Your task to perform on an android device: read, delete, or share a saved page in the chrome app Image 0: 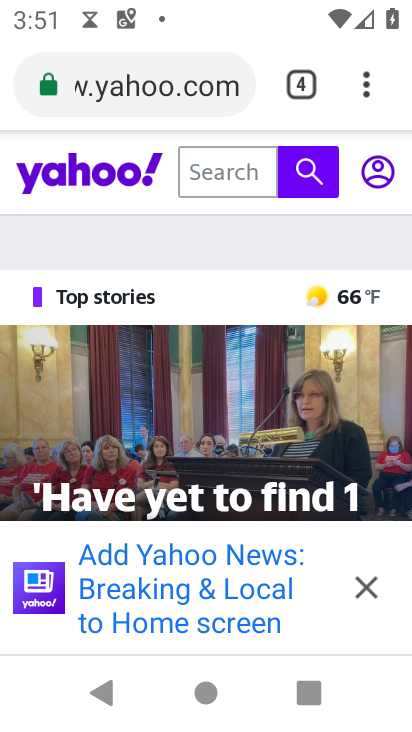
Step 0: click (362, 588)
Your task to perform on an android device: read, delete, or share a saved page in the chrome app Image 1: 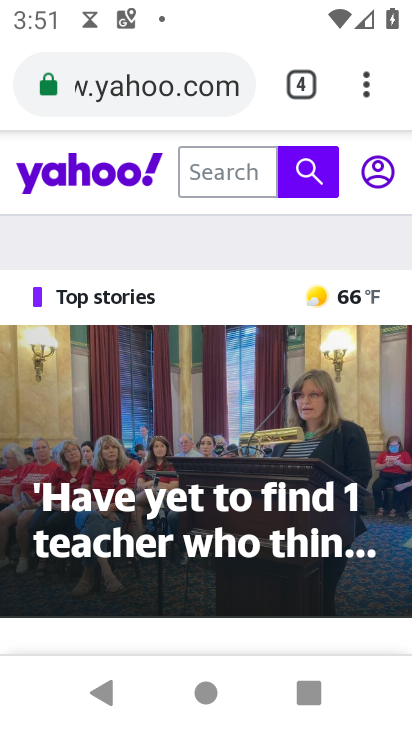
Step 1: click (369, 80)
Your task to perform on an android device: read, delete, or share a saved page in the chrome app Image 2: 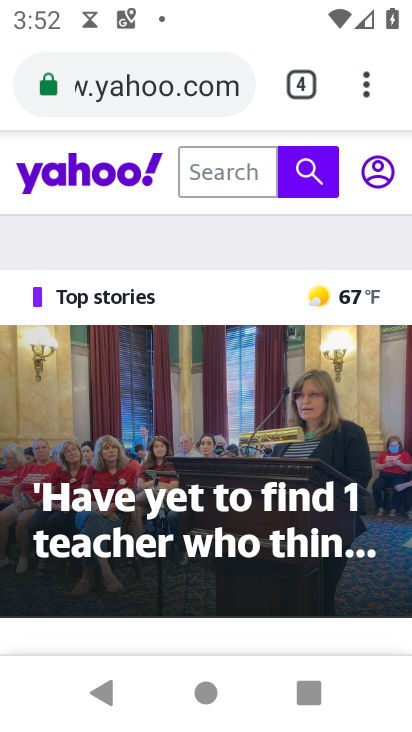
Step 2: click (361, 73)
Your task to perform on an android device: read, delete, or share a saved page in the chrome app Image 3: 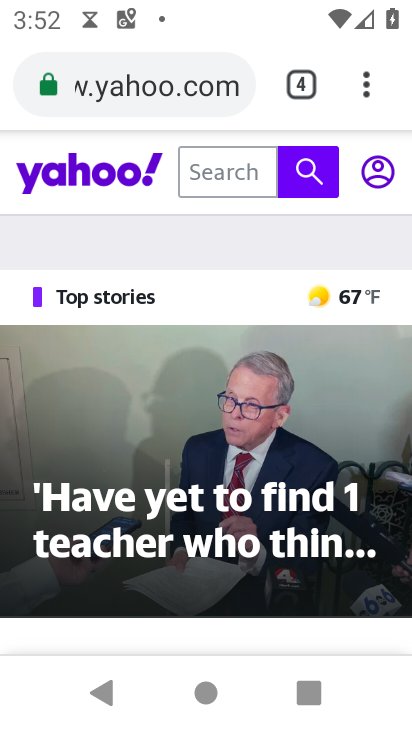
Step 3: click (366, 92)
Your task to perform on an android device: read, delete, or share a saved page in the chrome app Image 4: 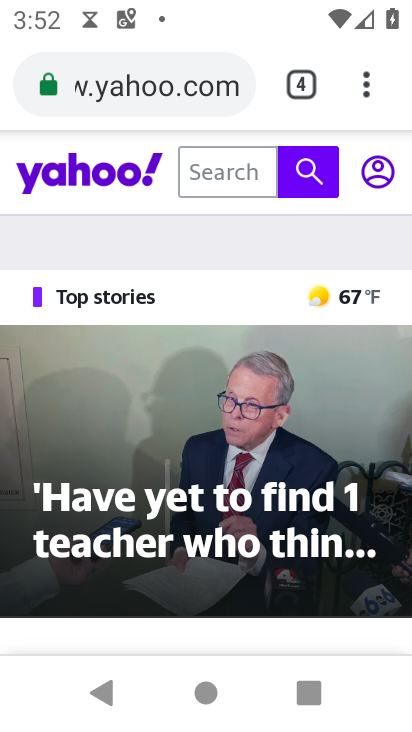
Step 4: click (368, 85)
Your task to perform on an android device: read, delete, or share a saved page in the chrome app Image 5: 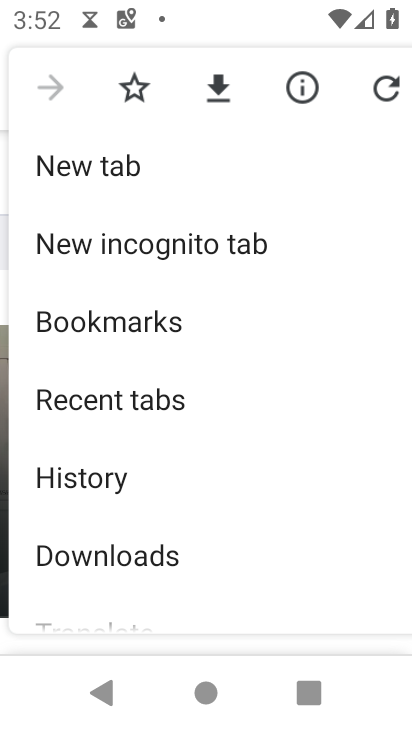
Step 5: click (153, 558)
Your task to perform on an android device: read, delete, or share a saved page in the chrome app Image 6: 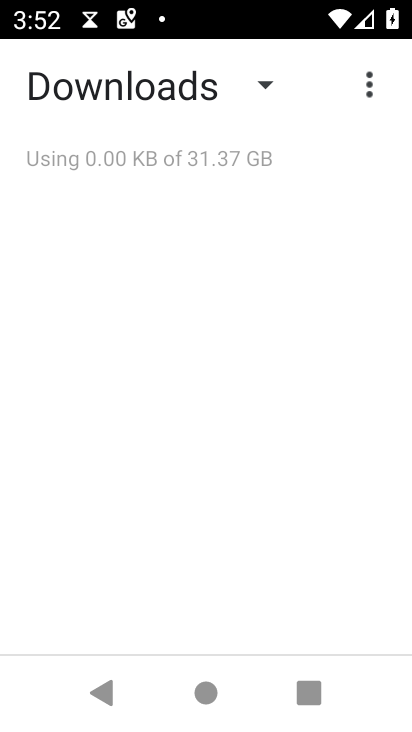
Step 6: click (240, 82)
Your task to perform on an android device: read, delete, or share a saved page in the chrome app Image 7: 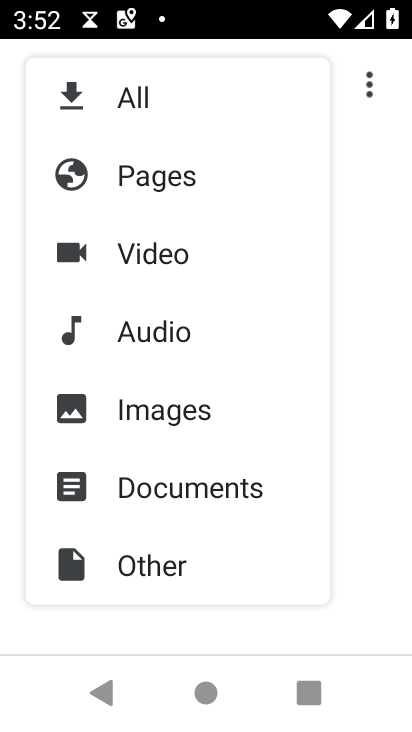
Step 7: click (139, 174)
Your task to perform on an android device: read, delete, or share a saved page in the chrome app Image 8: 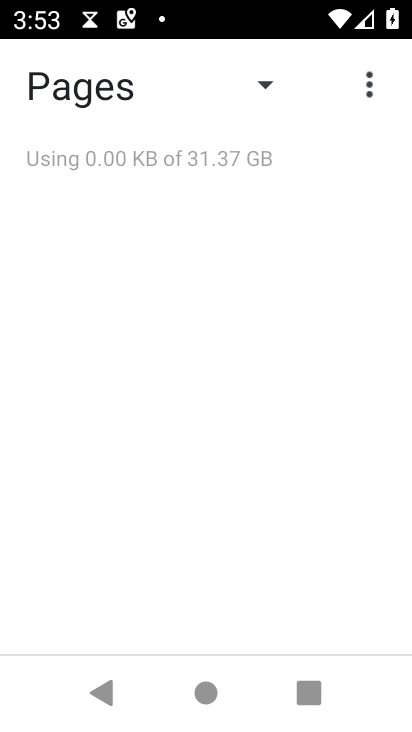
Step 8: task complete